Your task to perform on an android device: Open the calendar and show me this week's events? Image 0: 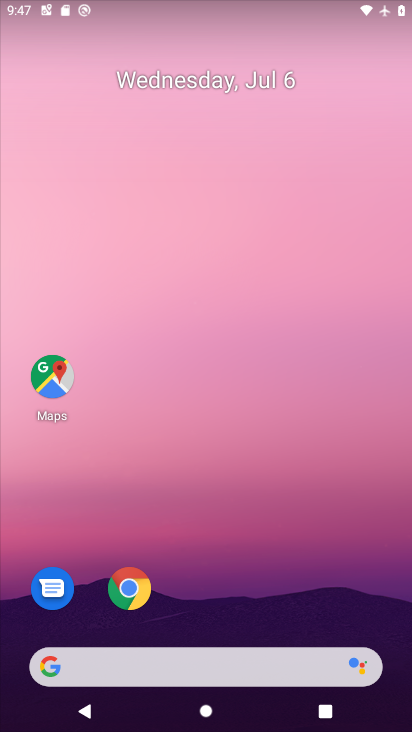
Step 0: drag from (171, 677) to (334, 73)
Your task to perform on an android device: Open the calendar and show me this week's events? Image 1: 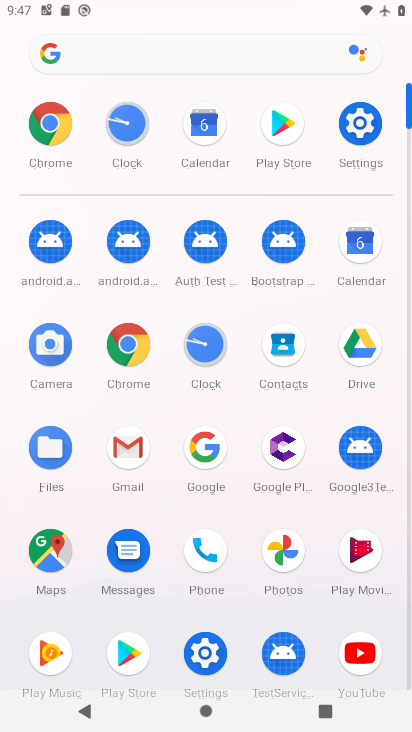
Step 1: click (366, 253)
Your task to perform on an android device: Open the calendar and show me this week's events? Image 2: 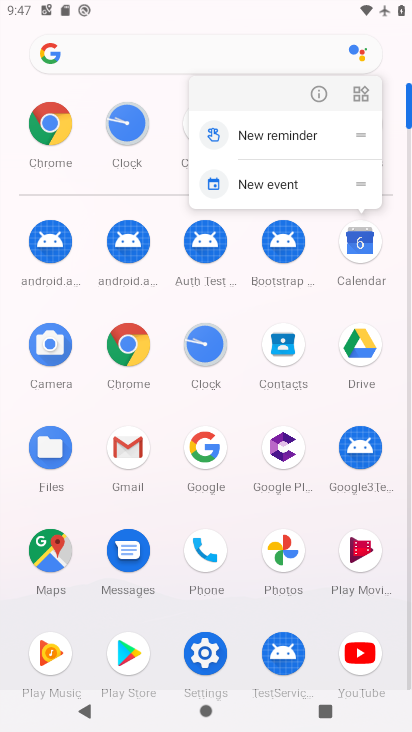
Step 2: click (366, 253)
Your task to perform on an android device: Open the calendar and show me this week's events? Image 3: 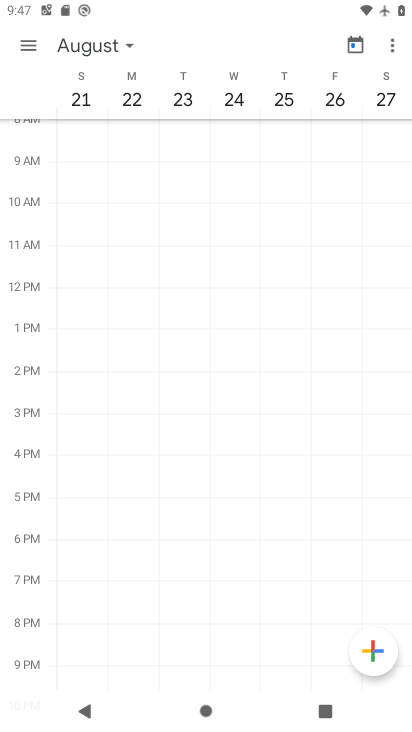
Step 3: click (95, 45)
Your task to perform on an android device: Open the calendar and show me this week's events? Image 4: 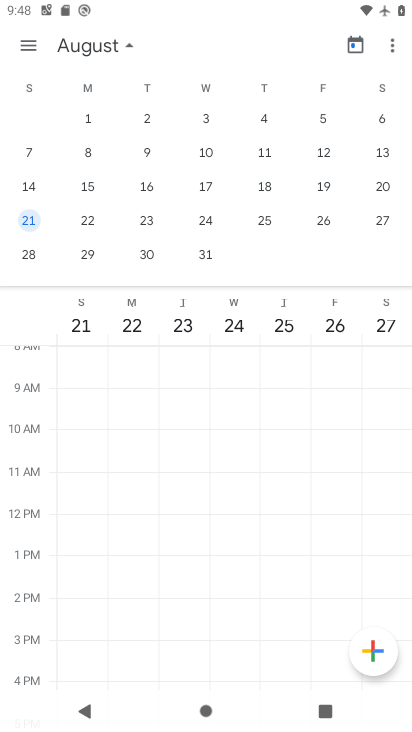
Step 4: click (82, 46)
Your task to perform on an android device: Open the calendar and show me this week's events? Image 5: 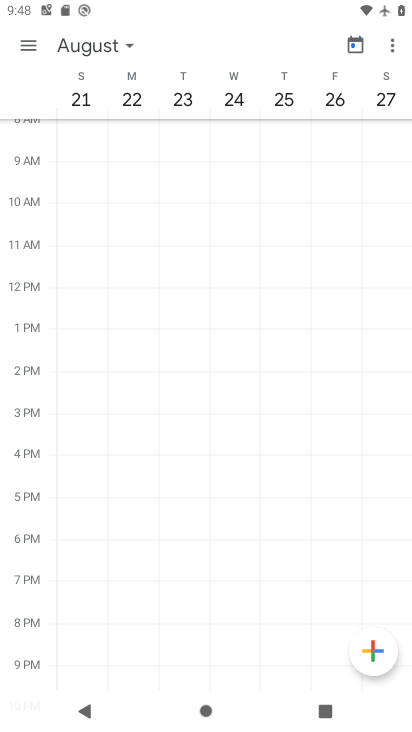
Step 5: click (103, 39)
Your task to perform on an android device: Open the calendar and show me this week's events? Image 6: 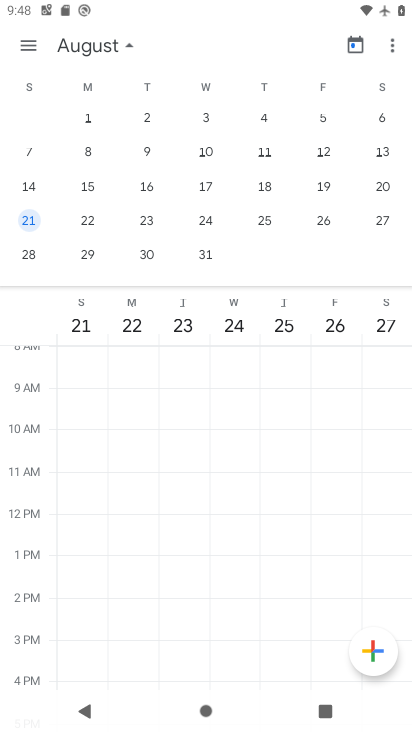
Step 6: drag from (43, 166) to (360, 172)
Your task to perform on an android device: Open the calendar and show me this week's events? Image 7: 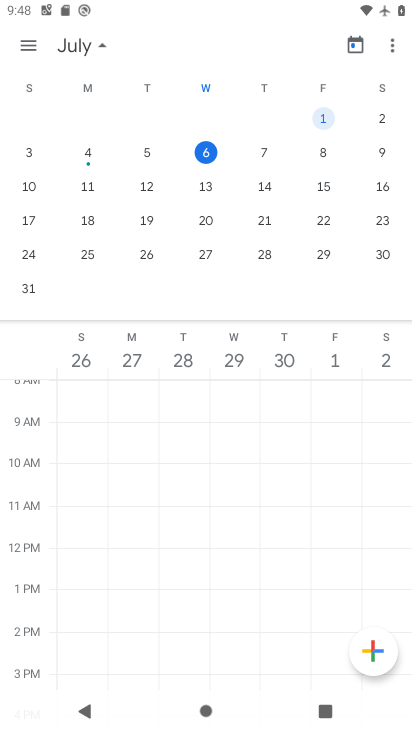
Step 7: click (205, 151)
Your task to perform on an android device: Open the calendar and show me this week's events? Image 8: 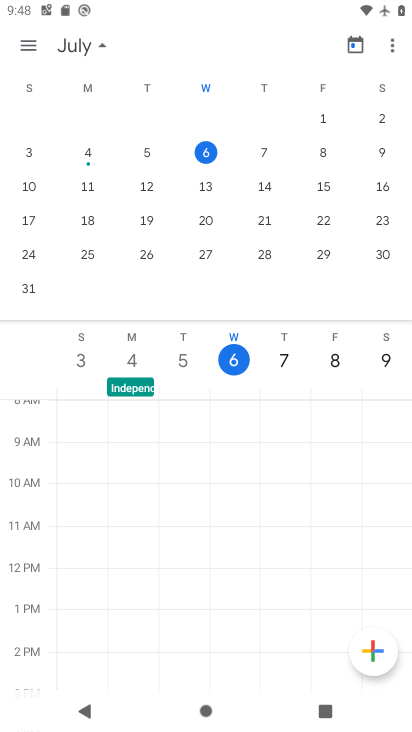
Step 8: click (31, 51)
Your task to perform on an android device: Open the calendar and show me this week's events? Image 9: 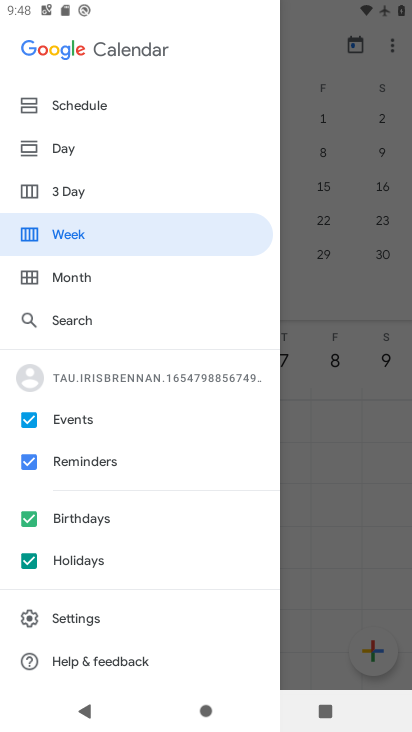
Step 9: click (83, 230)
Your task to perform on an android device: Open the calendar and show me this week's events? Image 10: 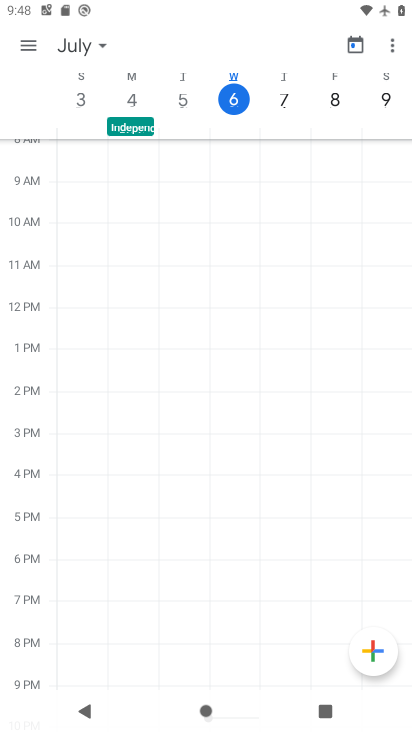
Step 10: task complete